Your task to perform on an android device: Open the contacts Image 0: 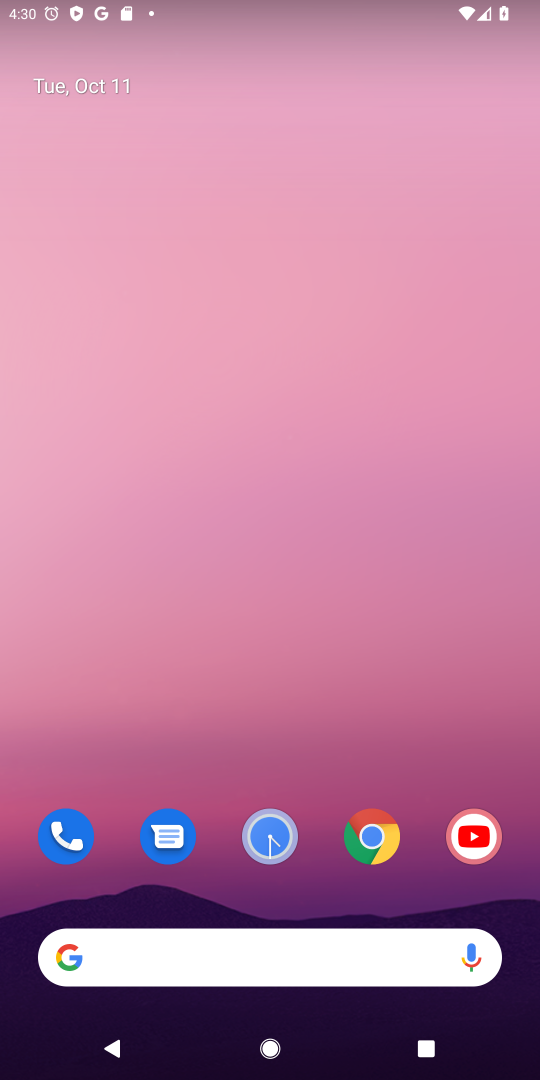
Step 0: drag from (216, 894) to (165, 155)
Your task to perform on an android device: Open the contacts Image 1: 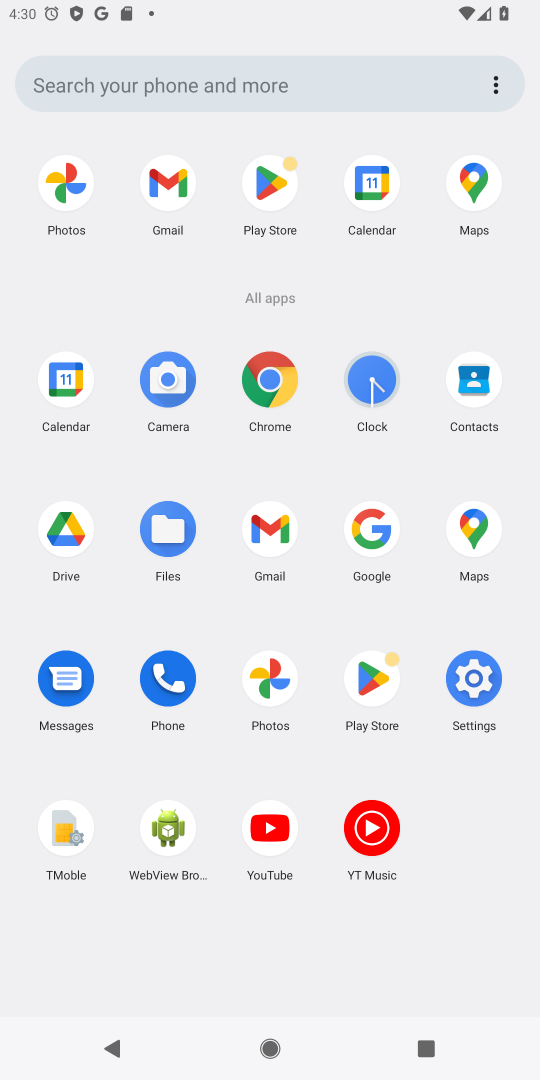
Step 1: click (479, 400)
Your task to perform on an android device: Open the contacts Image 2: 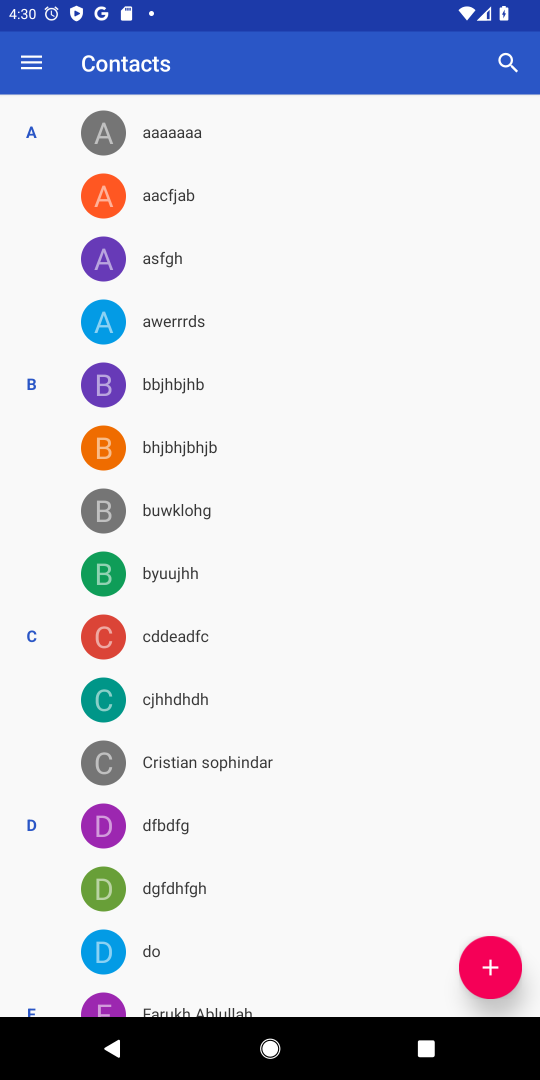
Step 2: task complete